Your task to perform on an android device: Add "apple airpods" to the cart on costco, then select checkout. Image 0: 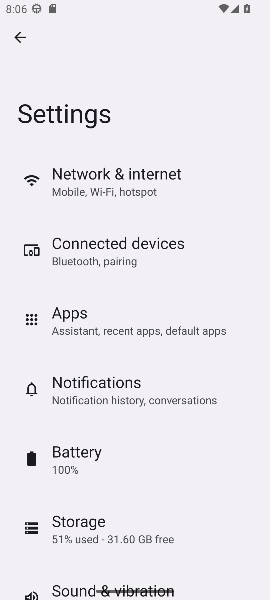
Step 0: press home button
Your task to perform on an android device: Add "apple airpods" to the cart on costco, then select checkout. Image 1: 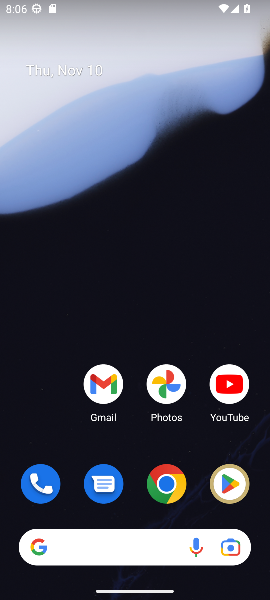
Step 1: click (160, 487)
Your task to perform on an android device: Add "apple airpods" to the cart on costco, then select checkout. Image 2: 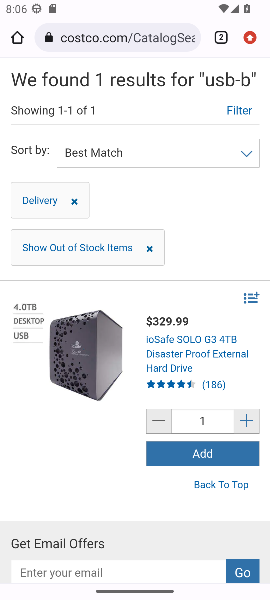
Step 2: drag from (130, 200) to (145, 411)
Your task to perform on an android device: Add "apple airpods" to the cart on costco, then select checkout. Image 3: 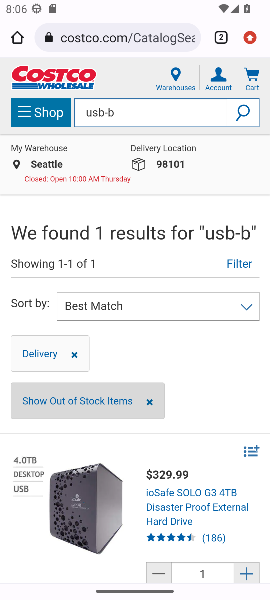
Step 3: click (123, 112)
Your task to perform on an android device: Add "apple airpods" to the cart on costco, then select checkout. Image 4: 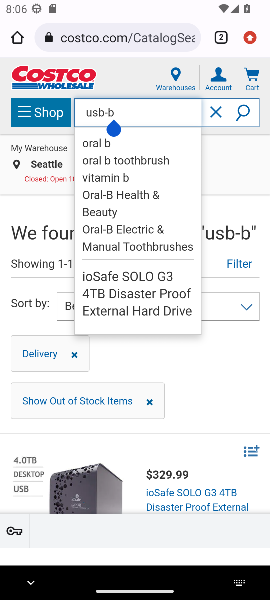
Step 4: click (215, 113)
Your task to perform on an android device: Add "apple airpods" to the cart on costco, then select checkout. Image 5: 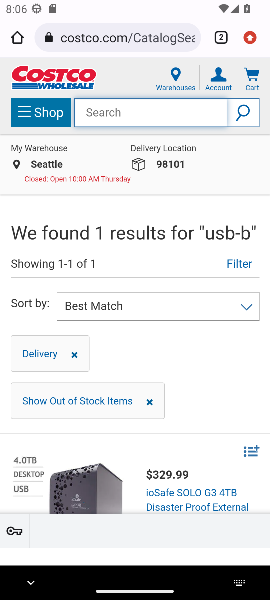
Step 5: type "apple airpods"
Your task to perform on an android device: Add "apple airpods" to the cart on costco, then select checkout. Image 6: 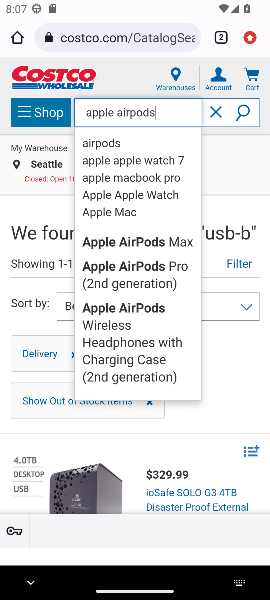
Step 6: click (243, 117)
Your task to perform on an android device: Add "apple airpods" to the cart on costco, then select checkout. Image 7: 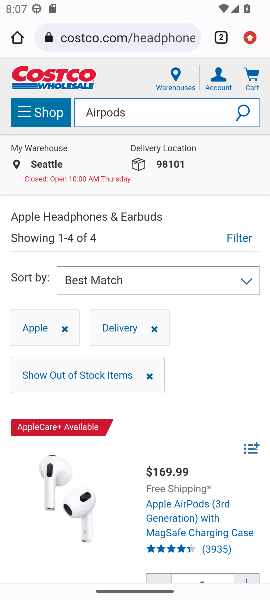
Step 7: click (80, 115)
Your task to perform on an android device: Add "apple airpods" to the cart on costco, then select checkout. Image 8: 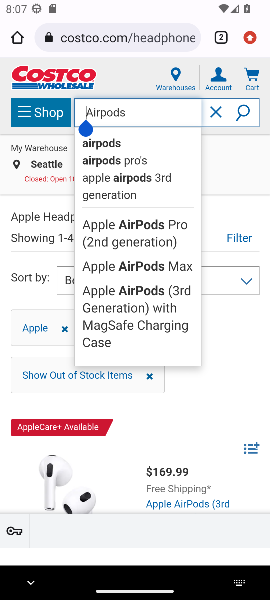
Step 8: type "apple "
Your task to perform on an android device: Add "apple airpods" to the cart on costco, then select checkout. Image 9: 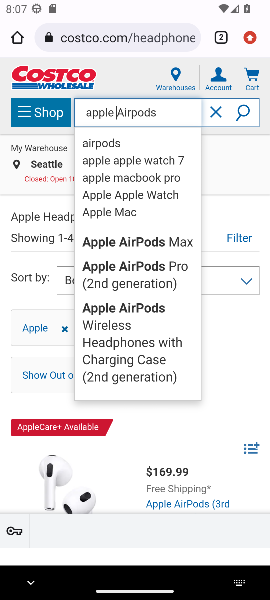
Step 9: click (239, 106)
Your task to perform on an android device: Add "apple airpods" to the cart on costco, then select checkout. Image 10: 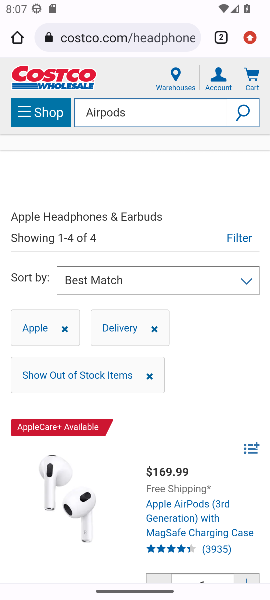
Step 10: drag from (94, 418) to (92, 155)
Your task to perform on an android device: Add "apple airpods" to the cart on costco, then select checkout. Image 11: 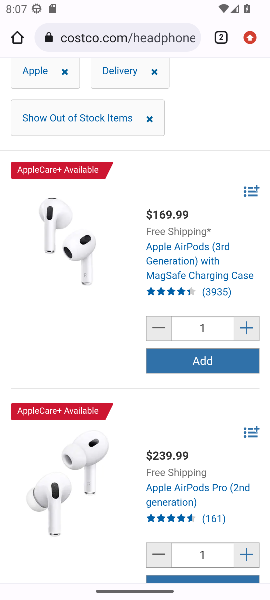
Step 11: click (198, 361)
Your task to perform on an android device: Add "apple airpods" to the cart on costco, then select checkout. Image 12: 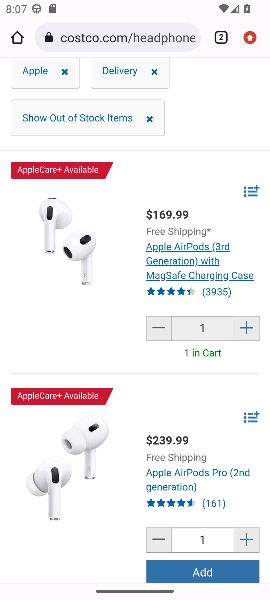
Step 12: drag from (177, 203) to (128, 376)
Your task to perform on an android device: Add "apple airpods" to the cart on costco, then select checkout. Image 13: 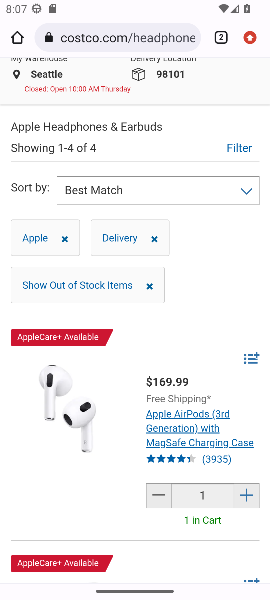
Step 13: drag from (210, 171) to (169, 345)
Your task to perform on an android device: Add "apple airpods" to the cart on costco, then select checkout. Image 14: 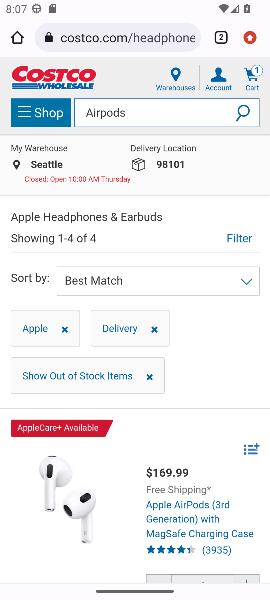
Step 14: click (244, 76)
Your task to perform on an android device: Add "apple airpods" to the cart on costco, then select checkout. Image 15: 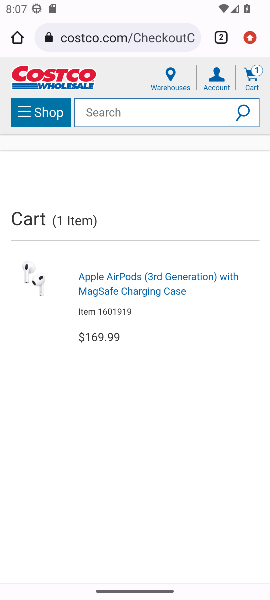
Step 15: click (142, 553)
Your task to perform on an android device: Add "apple airpods" to the cart on costco, then select checkout. Image 16: 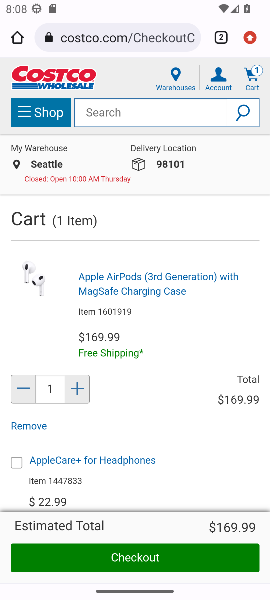
Step 16: click (142, 553)
Your task to perform on an android device: Add "apple airpods" to the cart on costco, then select checkout. Image 17: 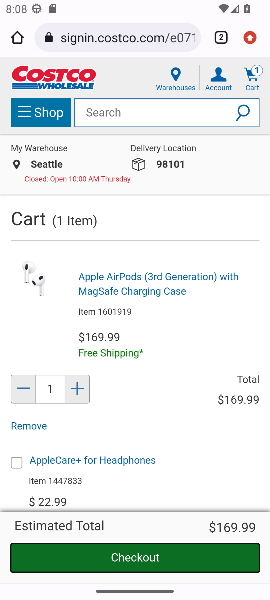
Step 17: click (114, 553)
Your task to perform on an android device: Add "apple airpods" to the cart on costco, then select checkout. Image 18: 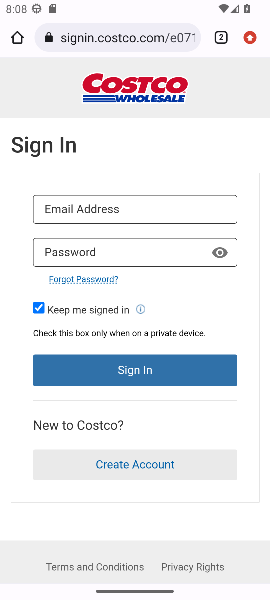
Step 18: task complete